Your task to perform on an android device: What's on my calendar tomorrow? Image 0: 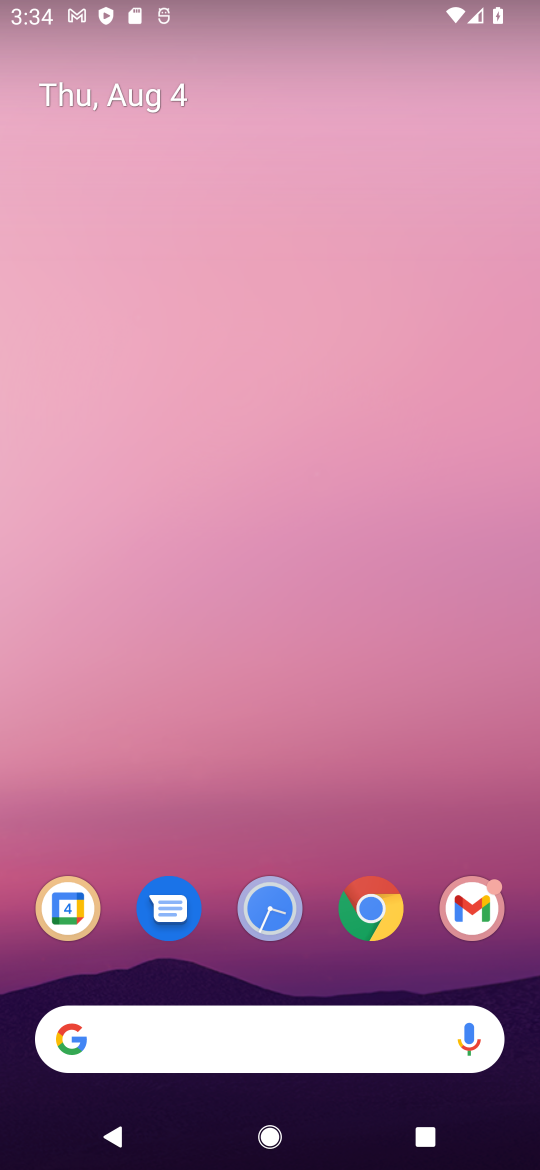
Step 0: click (69, 906)
Your task to perform on an android device: What's on my calendar tomorrow? Image 1: 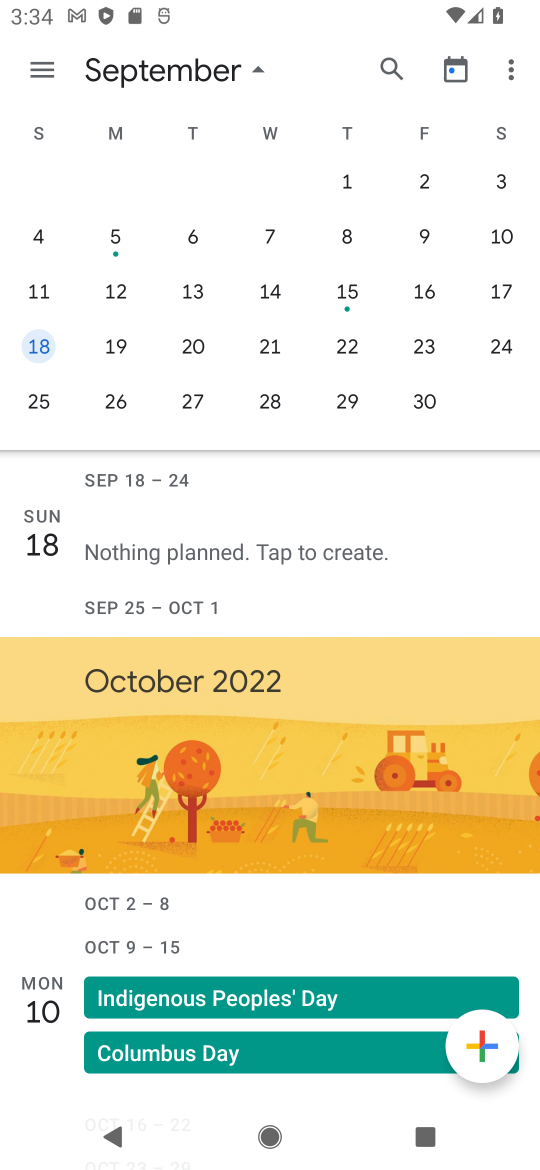
Step 1: click (188, 60)
Your task to perform on an android device: What's on my calendar tomorrow? Image 2: 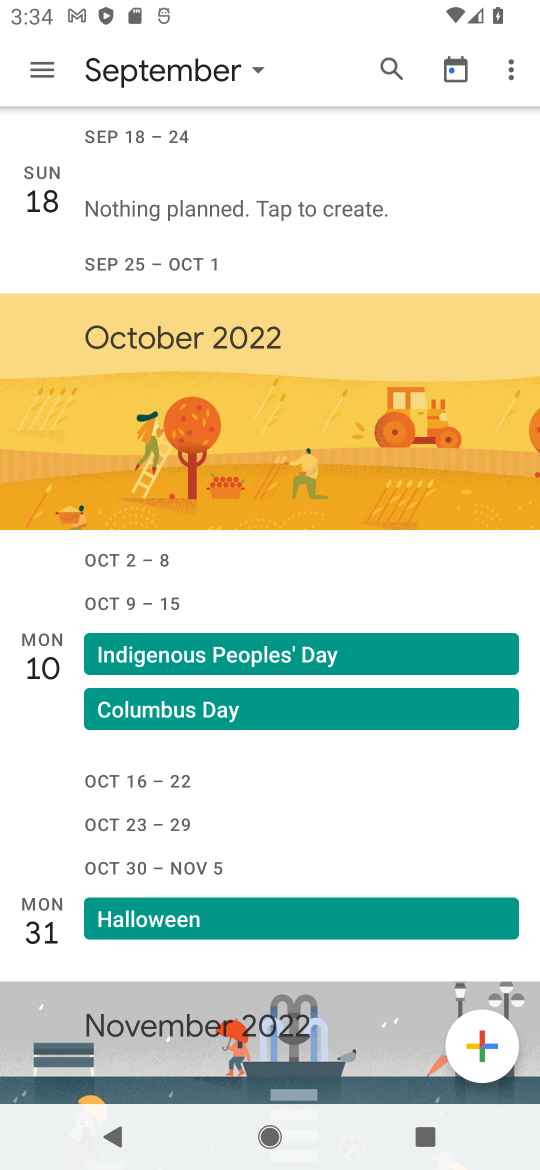
Step 2: click (151, 55)
Your task to perform on an android device: What's on my calendar tomorrow? Image 3: 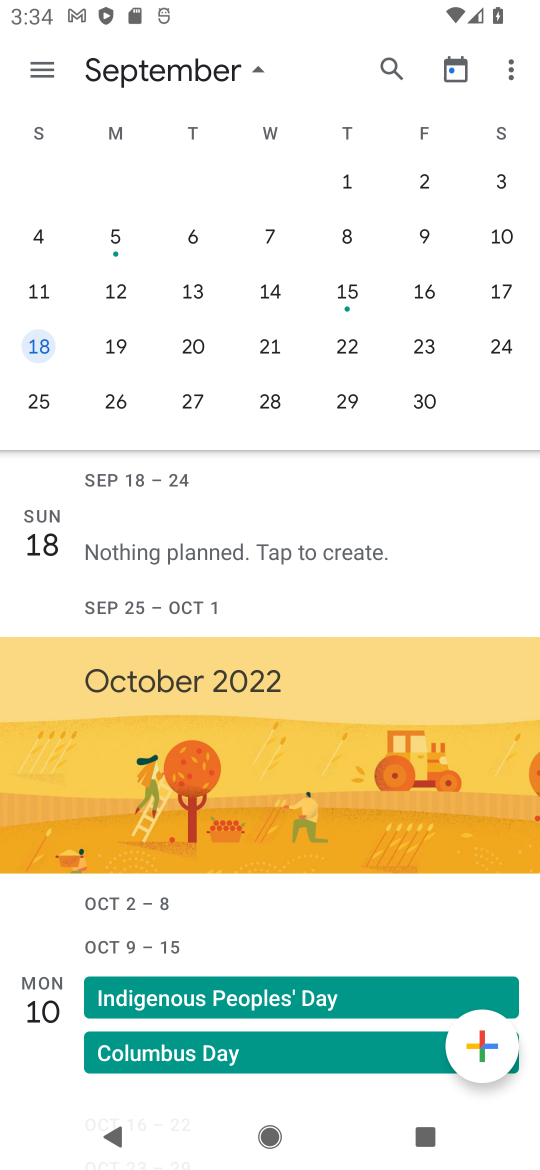
Step 3: drag from (85, 227) to (402, 121)
Your task to perform on an android device: What's on my calendar tomorrow? Image 4: 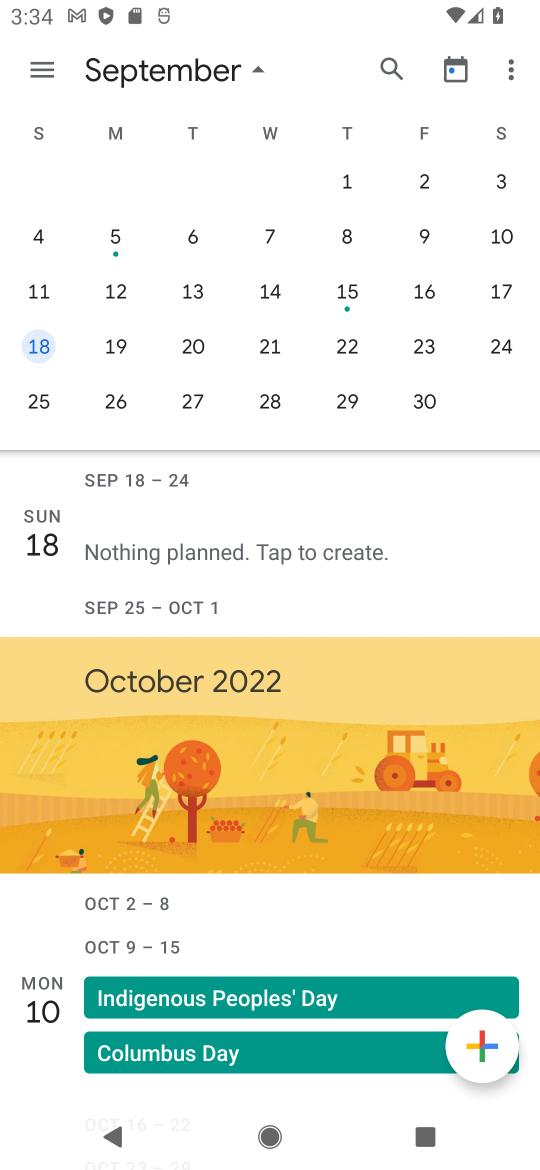
Step 4: drag from (43, 315) to (532, 249)
Your task to perform on an android device: What's on my calendar tomorrow? Image 5: 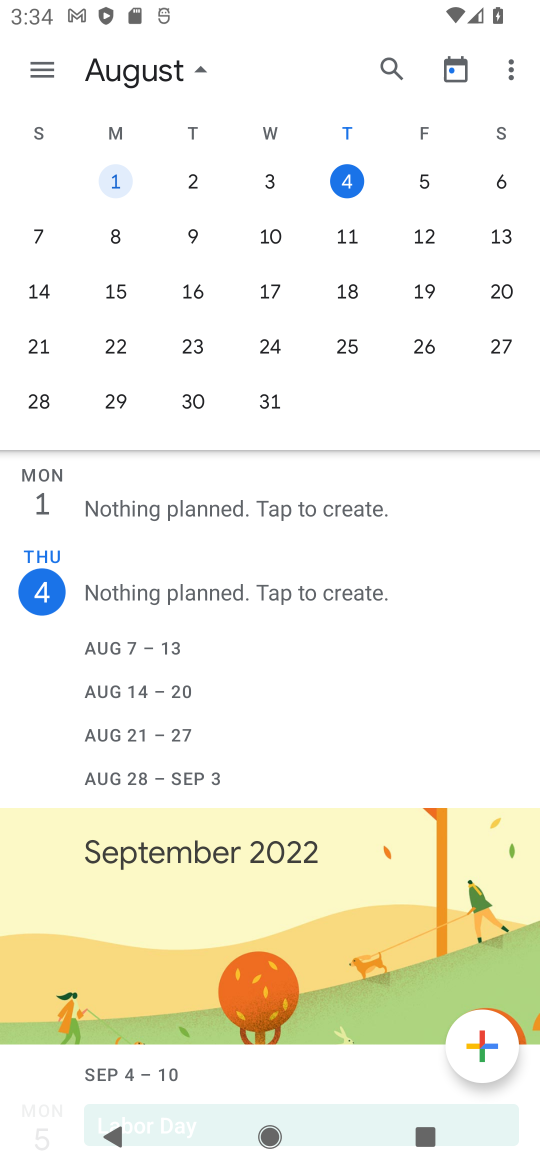
Step 5: click (405, 176)
Your task to perform on an android device: What's on my calendar tomorrow? Image 6: 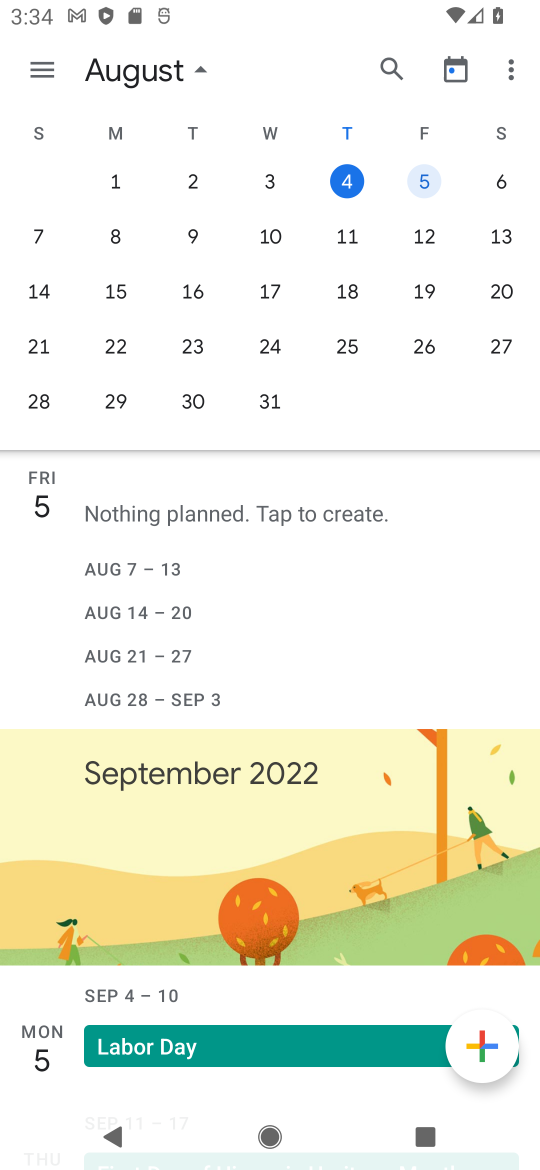
Step 6: task complete